Your task to perform on an android device: Search for the best rated headphones on AliExpress. Image 0: 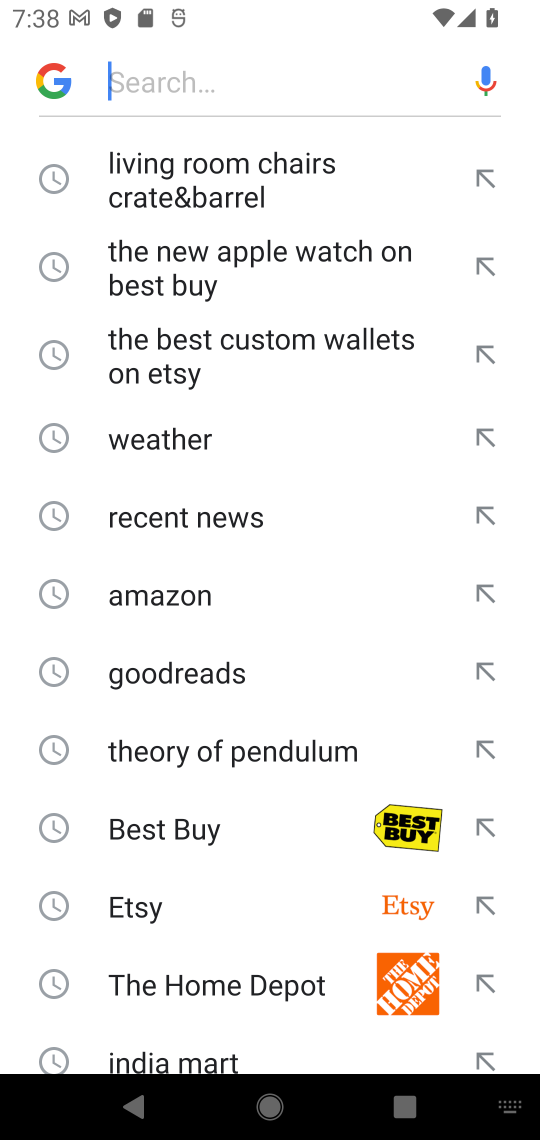
Step 0: type "the best rated headphones on AliExpress."
Your task to perform on an android device: Search for the best rated headphones on AliExpress. Image 1: 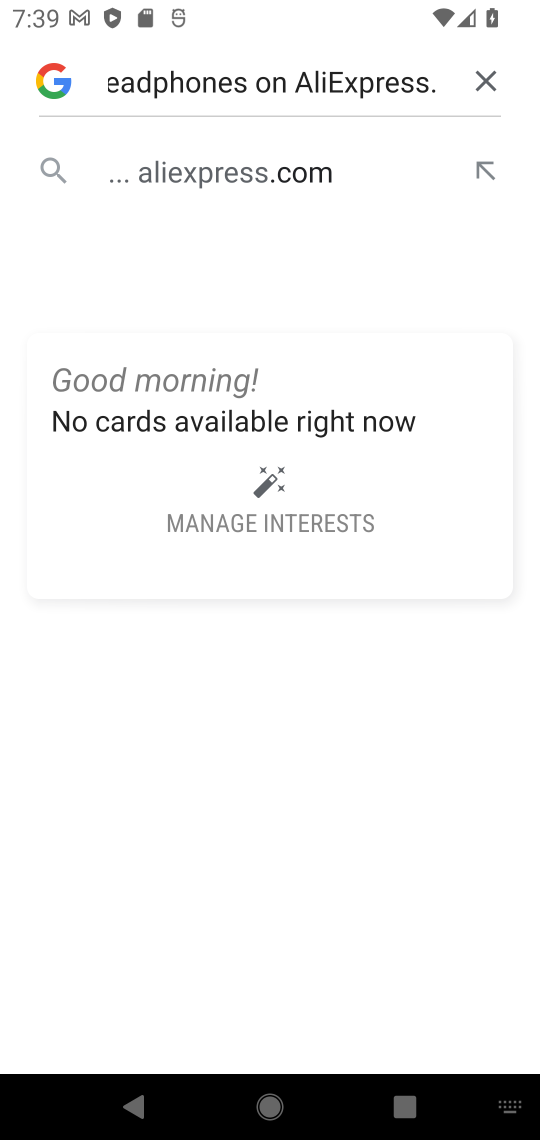
Step 1: click (245, 185)
Your task to perform on an android device: Search for the best rated headphones on AliExpress. Image 2: 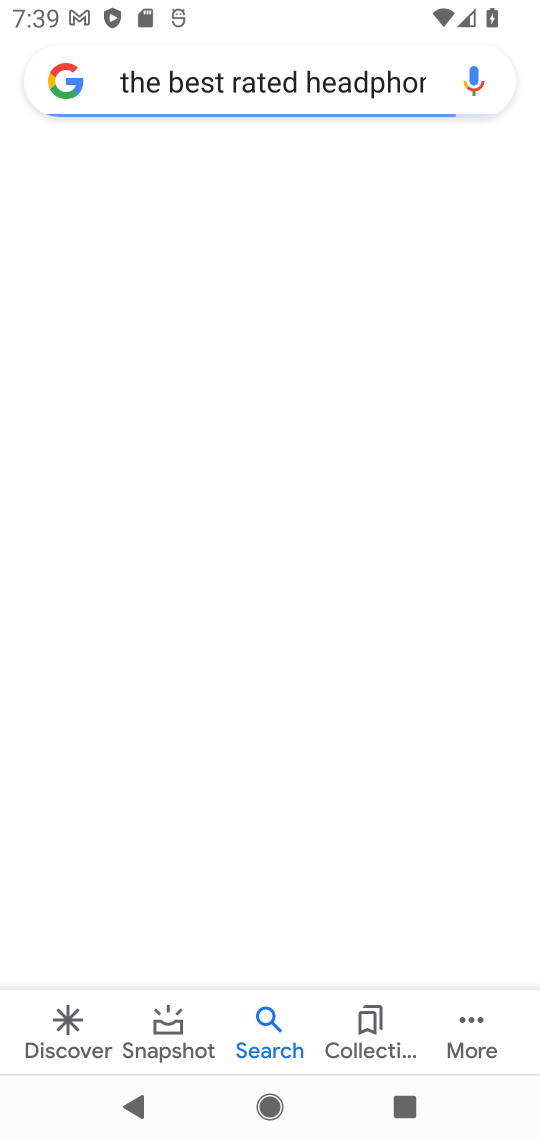
Step 2: click (226, 178)
Your task to perform on an android device: Search for the best rated headphones on AliExpress. Image 3: 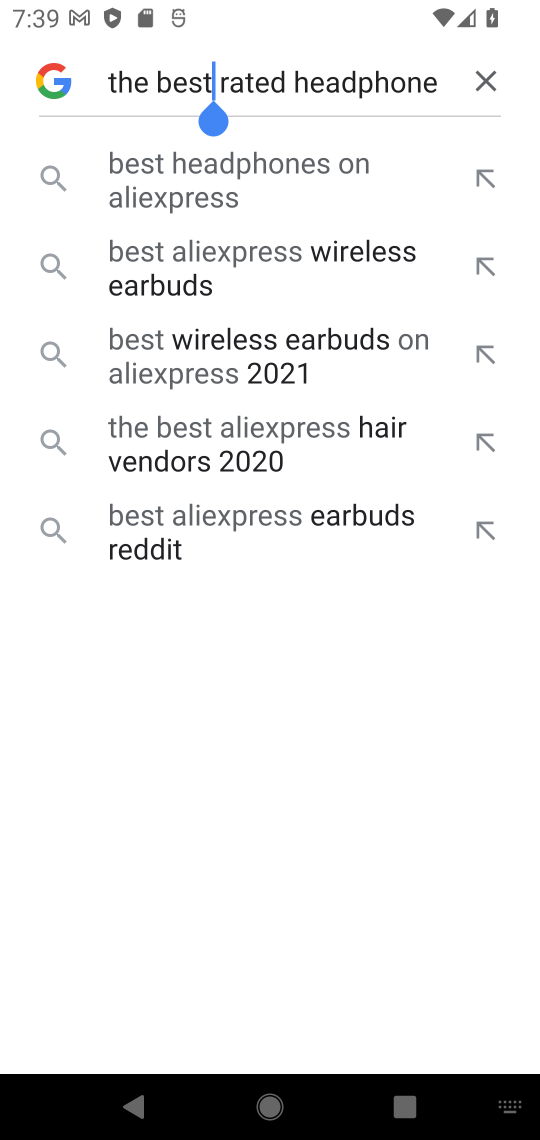
Step 3: task complete